Your task to perform on an android device: check storage Image 0: 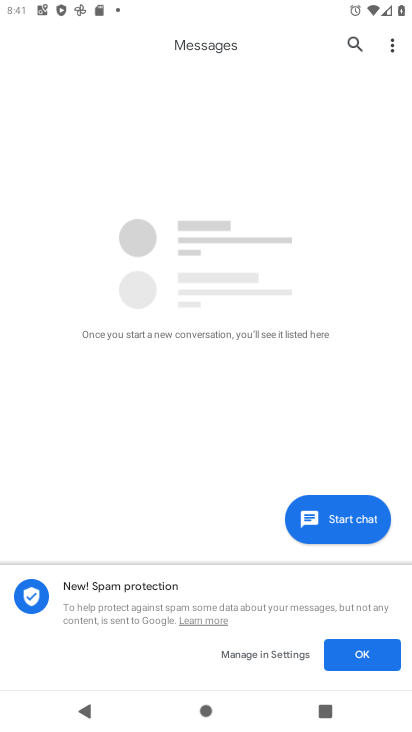
Step 0: drag from (388, 631) to (373, 149)
Your task to perform on an android device: check storage Image 1: 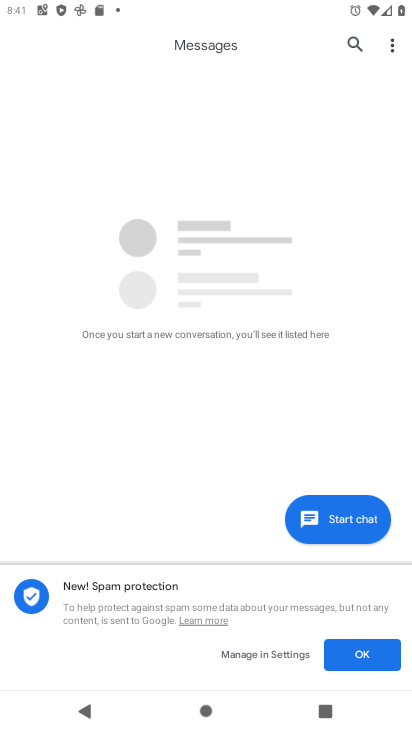
Step 1: press home button
Your task to perform on an android device: check storage Image 2: 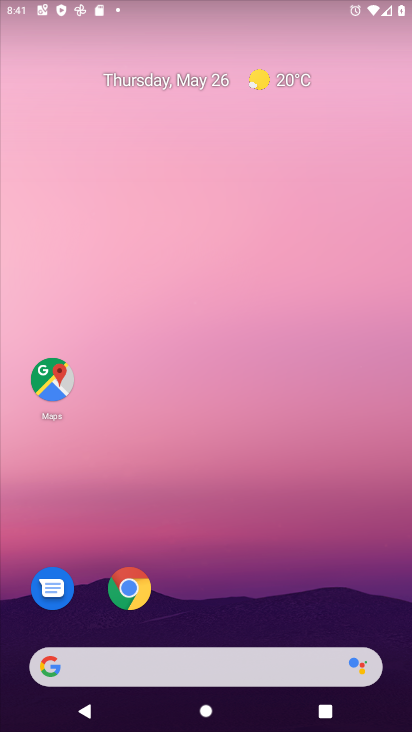
Step 2: drag from (387, 572) to (280, 92)
Your task to perform on an android device: check storage Image 3: 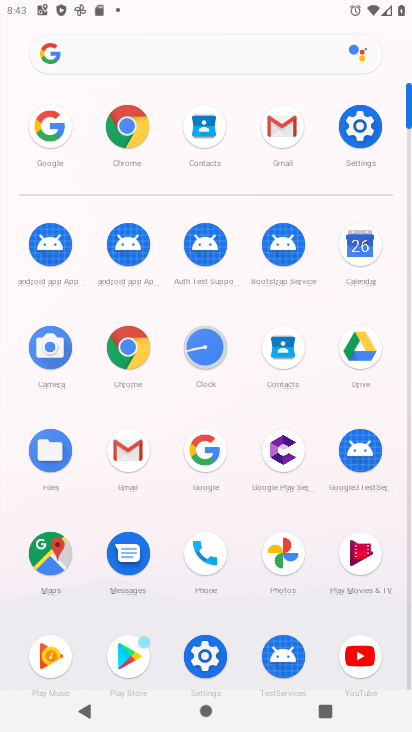
Step 3: click (203, 656)
Your task to perform on an android device: check storage Image 4: 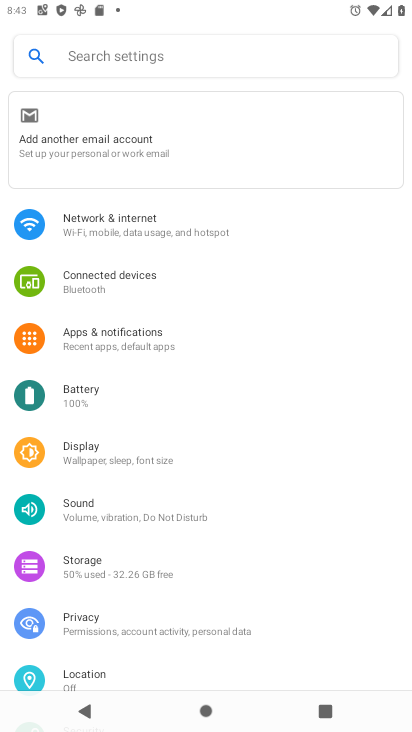
Step 4: click (118, 578)
Your task to perform on an android device: check storage Image 5: 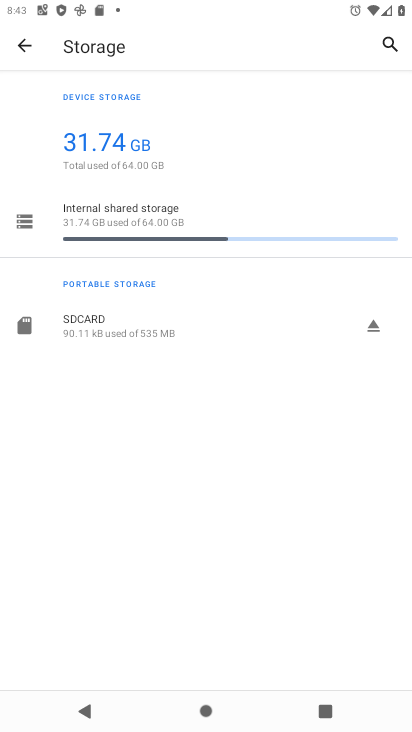
Step 5: click (183, 207)
Your task to perform on an android device: check storage Image 6: 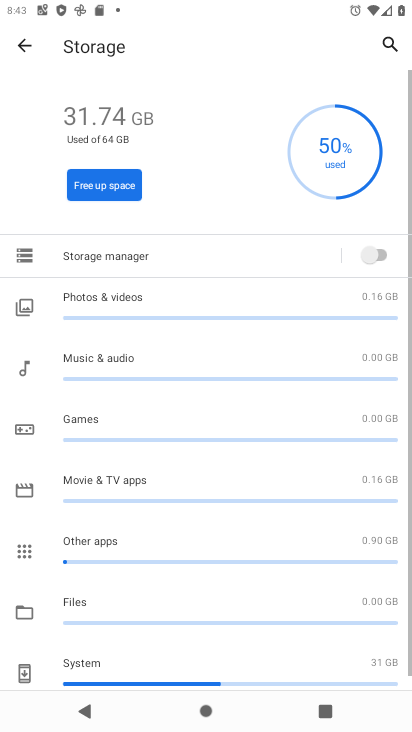
Step 6: task complete